Your task to perform on an android device: open wifi settings Image 0: 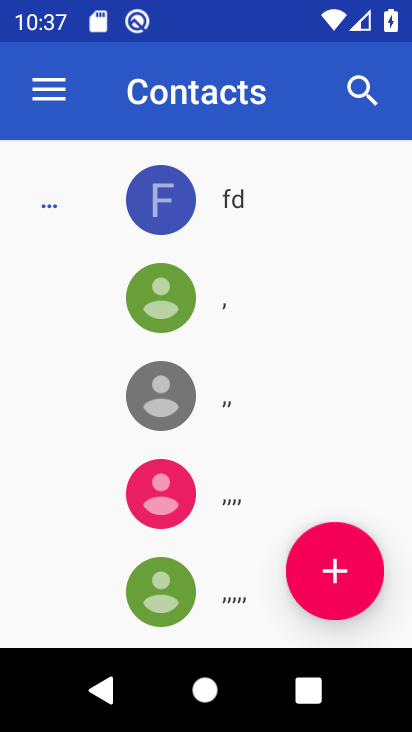
Step 0: press home button
Your task to perform on an android device: open wifi settings Image 1: 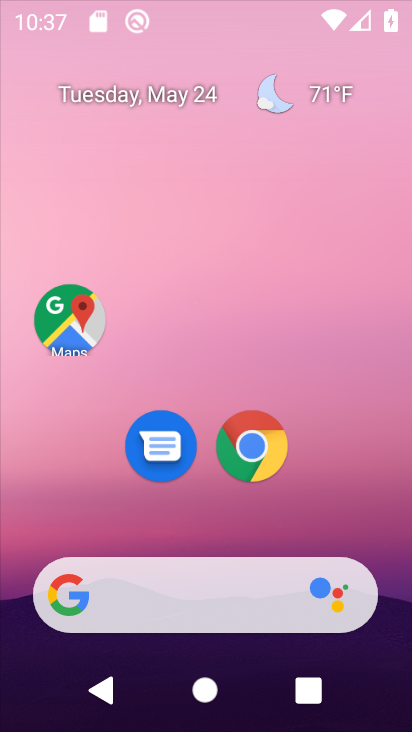
Step 1: drag from (215, 526) to (219, 179)
Your task to perform on an android device: open wifi settings Image 2: 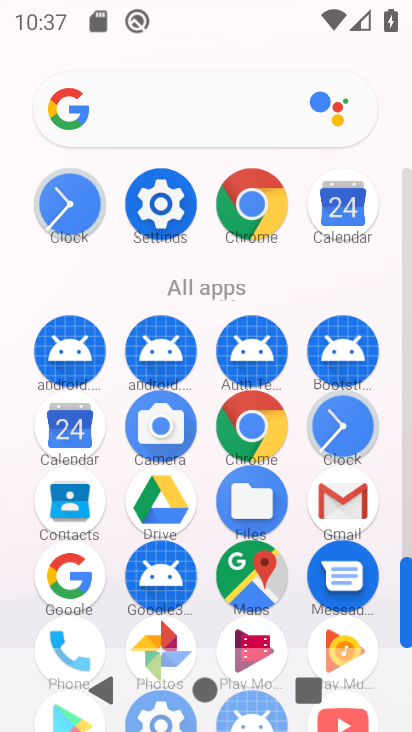
Step 2: click (176, 216)
Your task to perform on an android device: open wifi settings Image 3: 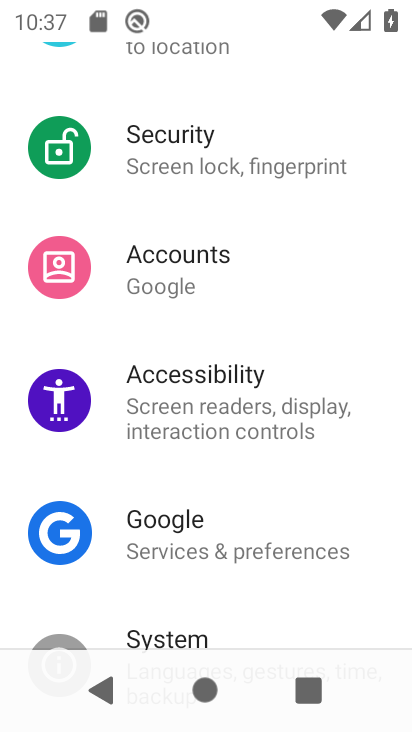
Step 3: drag from (205, 176) to (185, 726)
Your task to perform on an android device: open wifi settings Image 4: 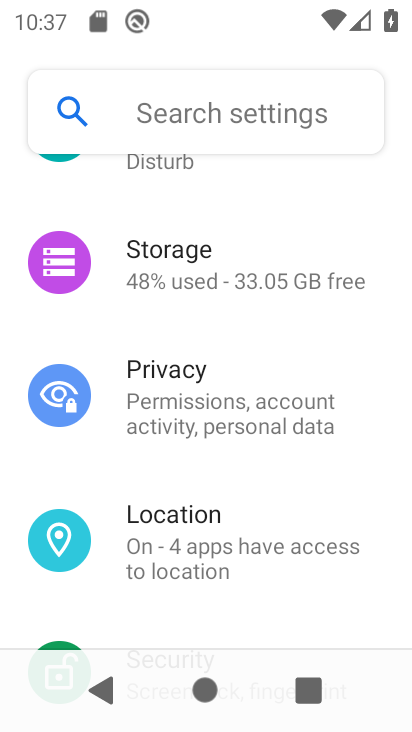
Step 4: drag from (217, 309) to (224, 646)
Your task to perform on an android device: open wifi settings Image 5: 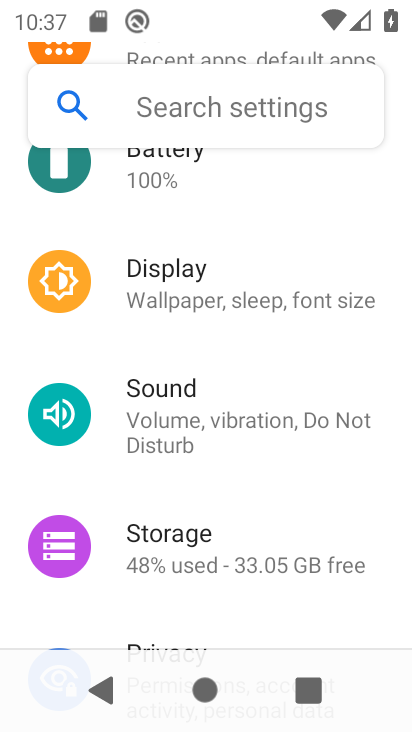
Step 5: drag from (212, 332) to (216, 678)
Your task to perform on an android device: open wifi settings Image 6: 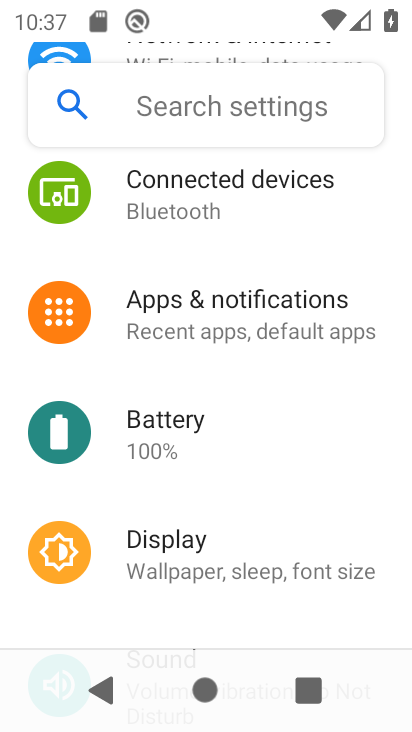
Step 6: drag from (227, 316) to (223, 691)
Your task to perform on an android device: open wifi settings Image 7: 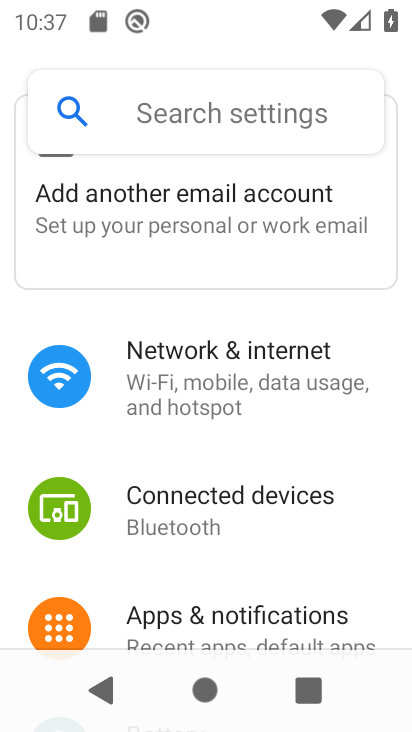
Step 7: click (202, 375)
Your task to perform on an android device: open wifi settings Image 8: 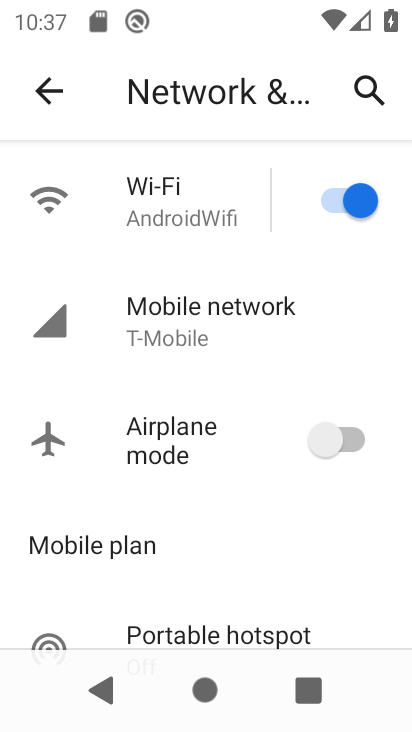
Step 8: click (198, 226)
Your task to perform on an android device: open wifi settings Image 9: 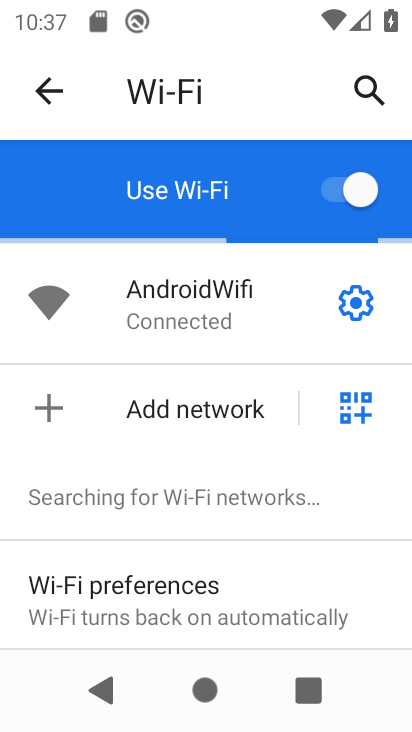
Step 9: task complete